Your task to perform on an android device: Search for the best rated running shoes on Nike.com Image 0: 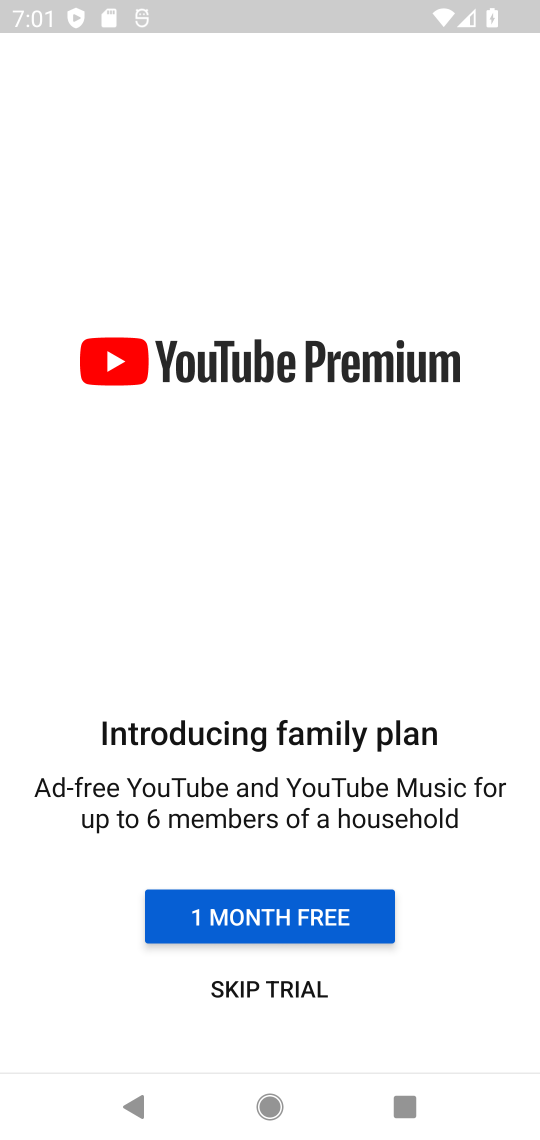
Step 0: press home button
Your task to perform on an android device: Search for the best rated running shoes on Nike.com Image 1: 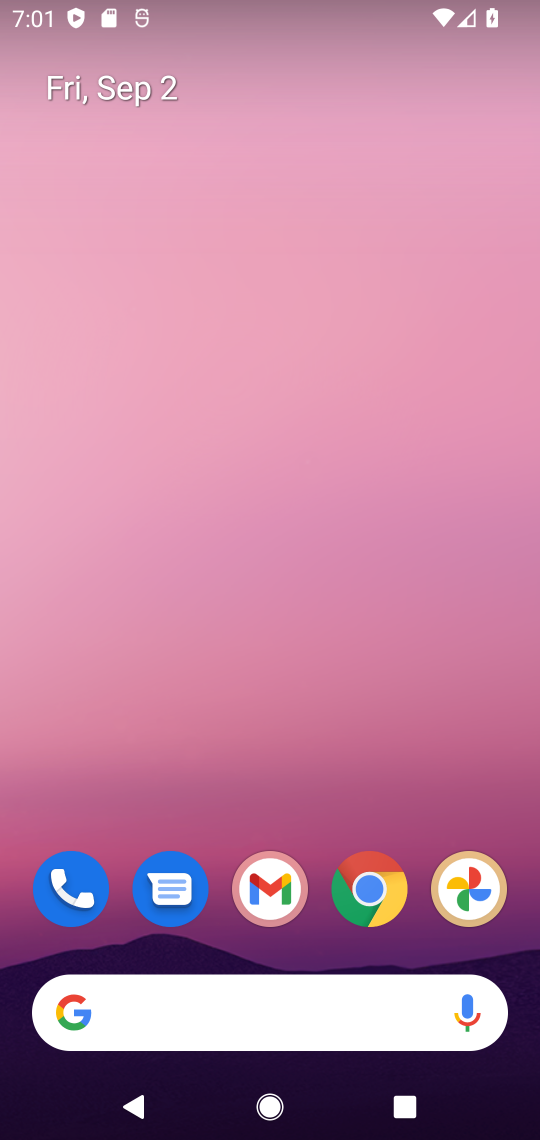
Step 1: click (371, 993)
Your task to perform on an android device: Search for the best rated running shoes on Nike.com Image 2: 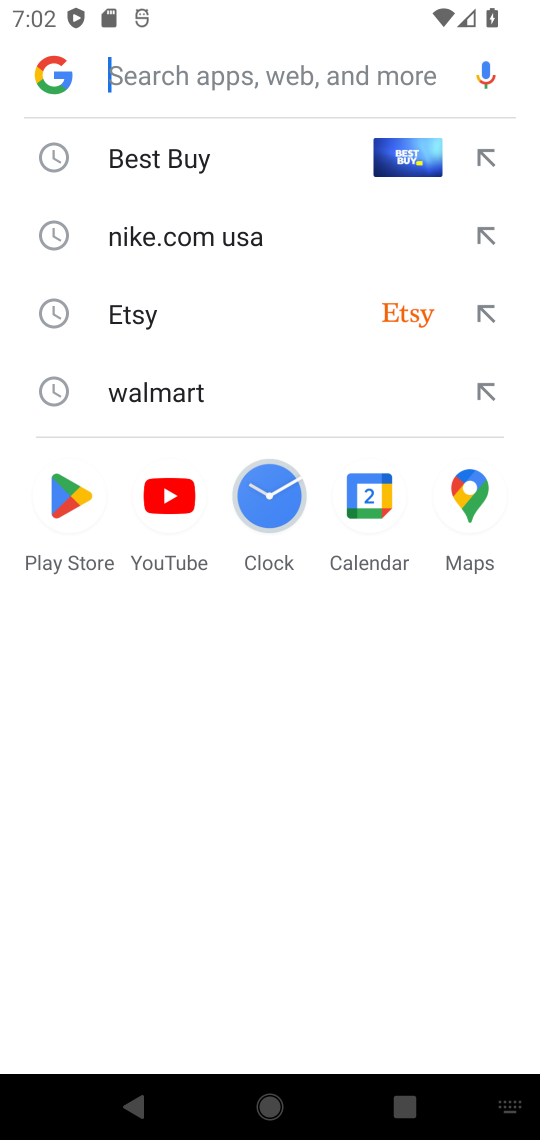
Step 2: type "Nike.com"
Your task to perform on an android device: Search for the best rated running shoes on Nike.com Image 3: 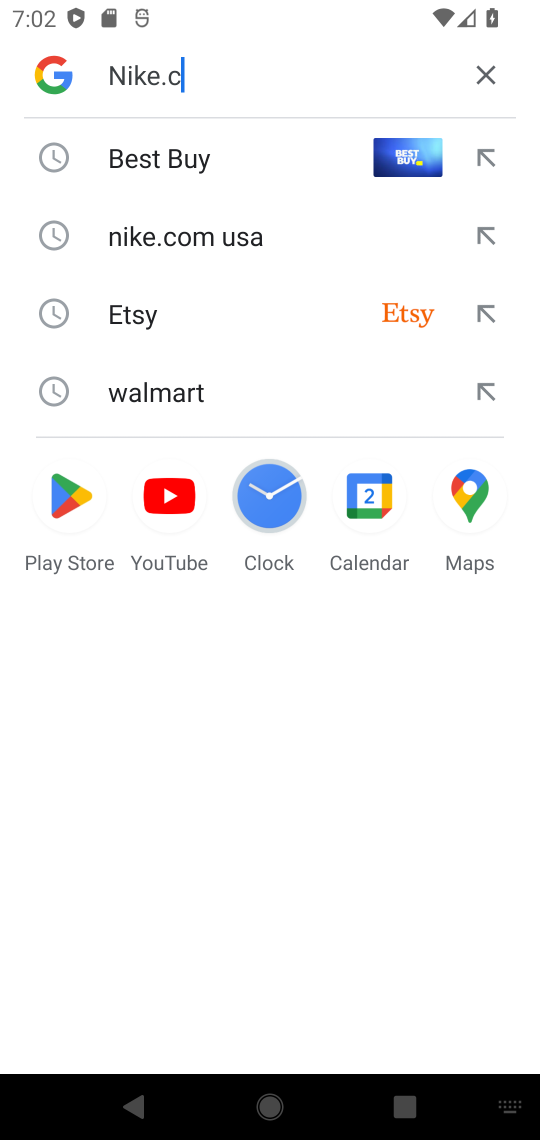
Step 3: type ""
Your task to perform on an android device: Search for the best rated running shoes on Nike.com Image 4: 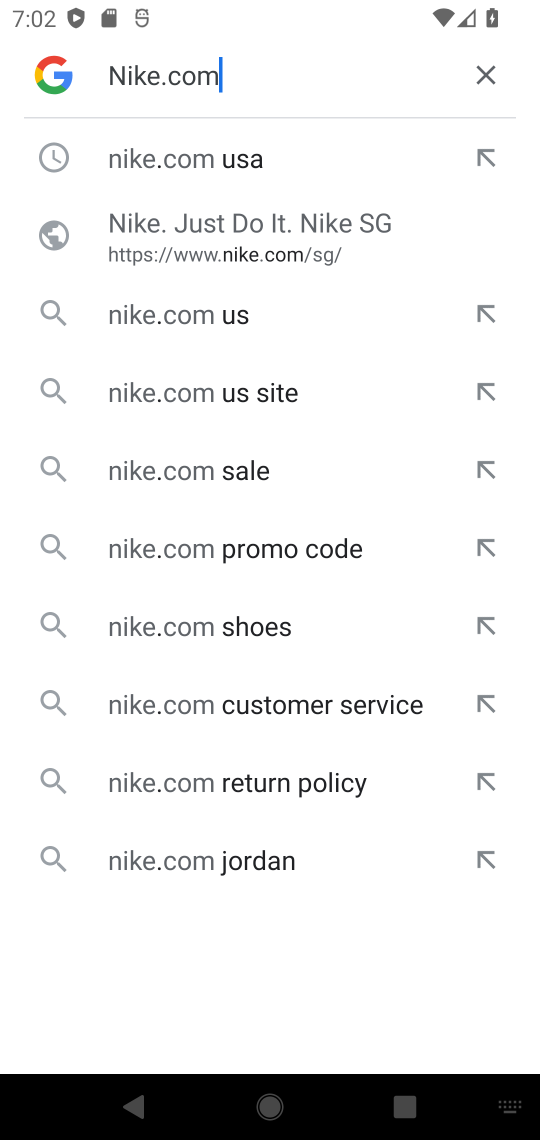
Step 4: click (222, 173)
Your task to perform on an android device: Search for the best rated running shoes on Nike.com Image 5: 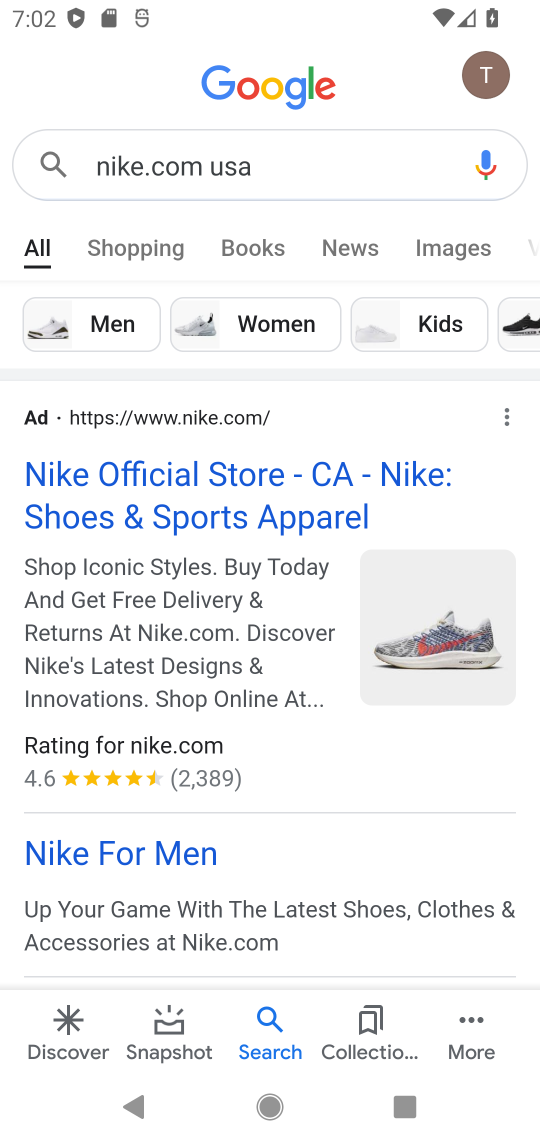
Step 5: drag from (294, 746) to (261, 143)
Your task to perform on an android device: Search for the best rated running shoes on Nike.com Image 6: 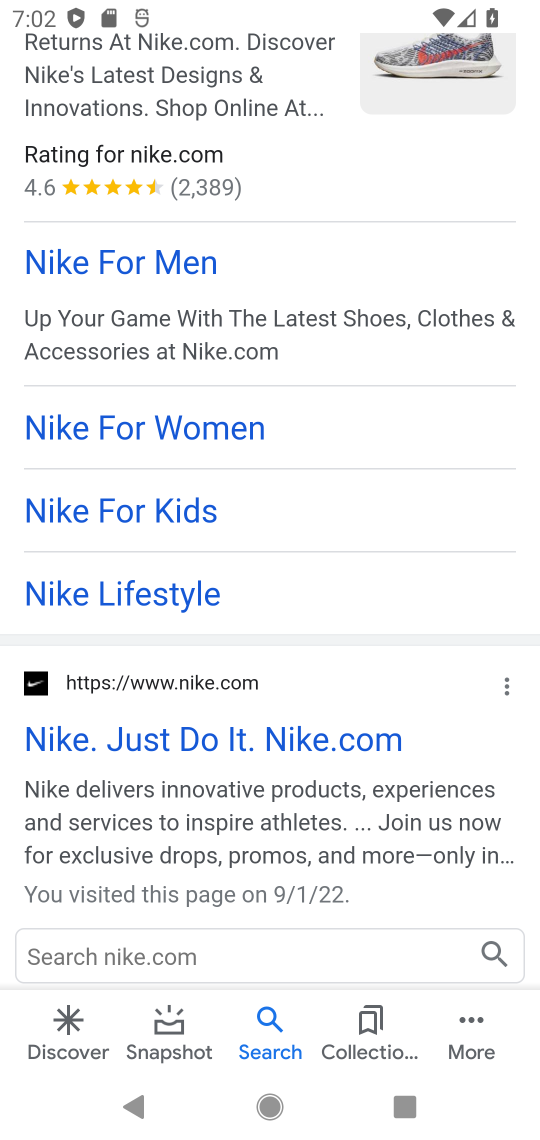
Step 6: click (161, 281)
Your task to perform on an android device: Search for the best rated running shoes on Nike.com Image 7: 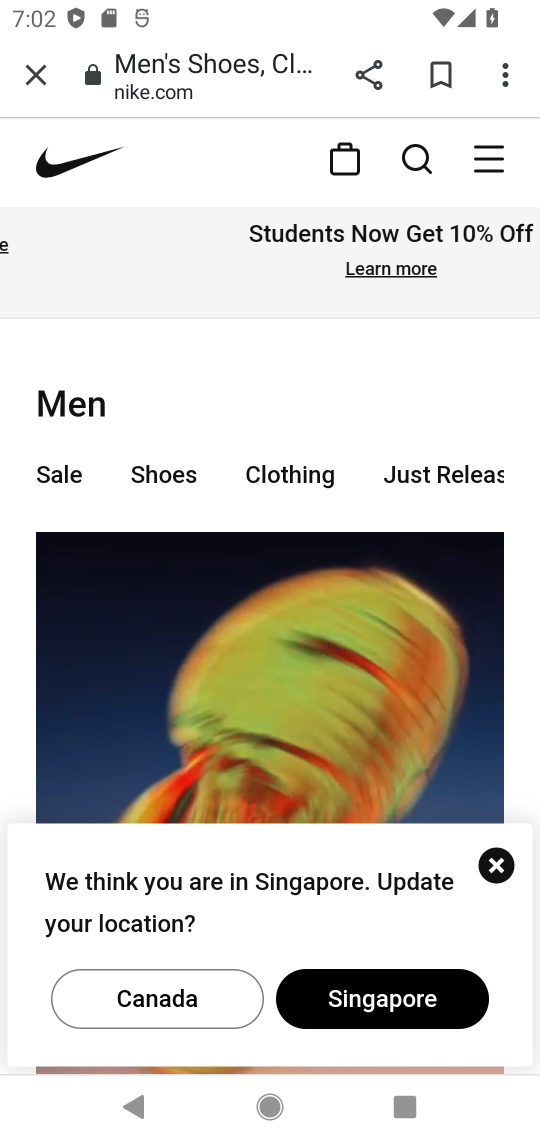
Step 7: click (409, 161)
Your task to perform on an android device: Search for the best rated running shoes on Nike.com Image 8: 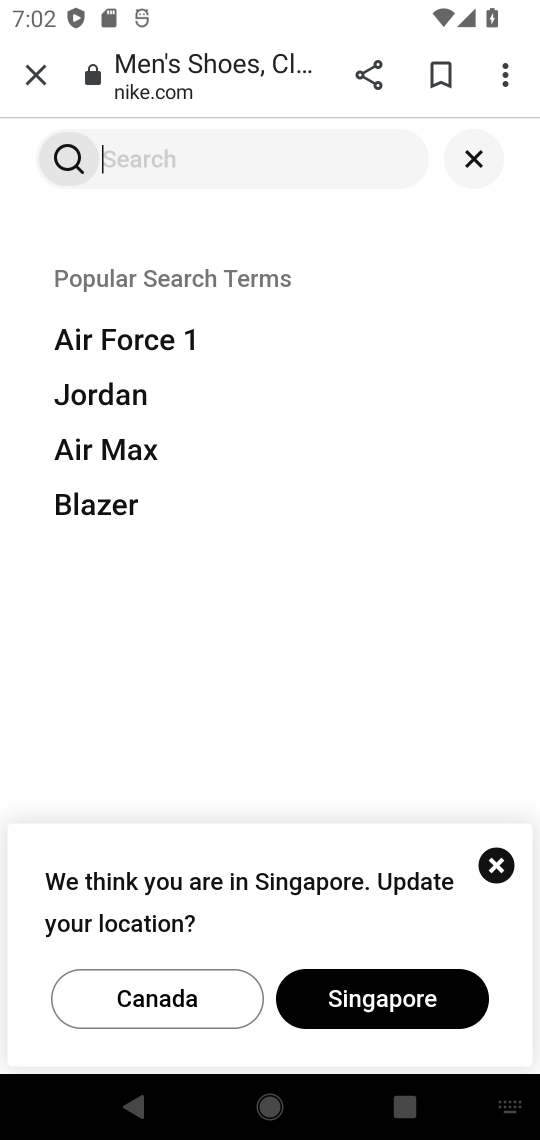
Step 8: type "running shoes"
Your task to perform on an android device: Search for the best rated running shoes on Nike.com Image 9: 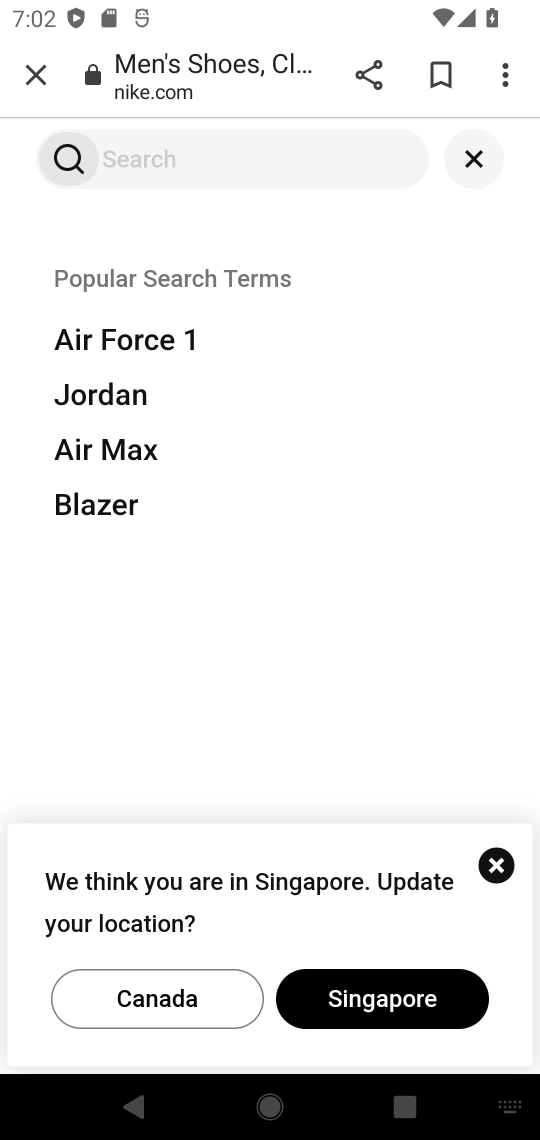
Step 9: type ""
Your task to perform on an android device: Search for the best rated running shoes on Nike.com Image 10: 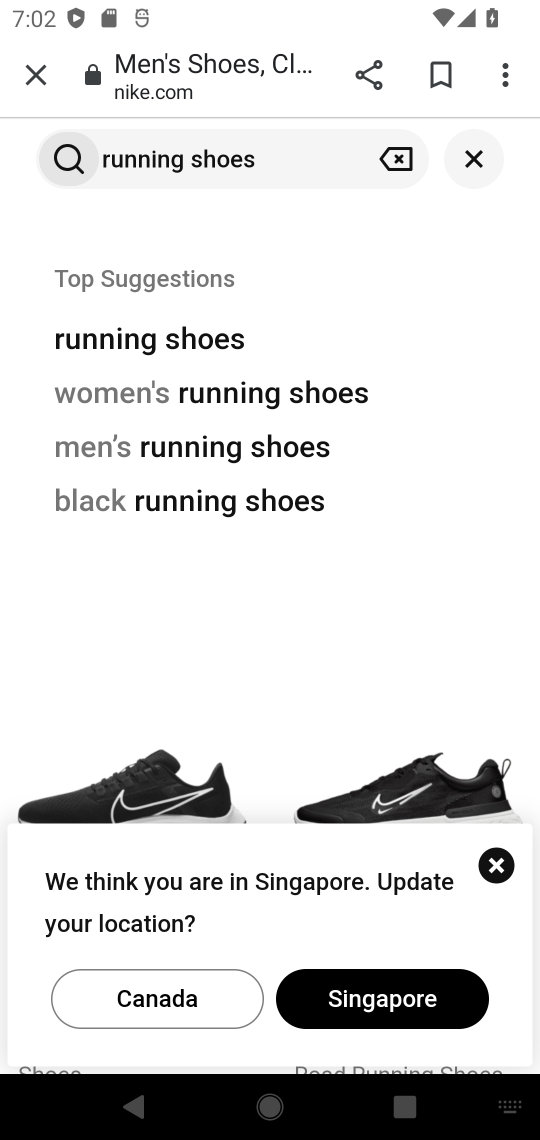
Step 10: click (220, 338)
Your task to perform on an android device: Search for the best rated running shoes on Nike.com Image 11: 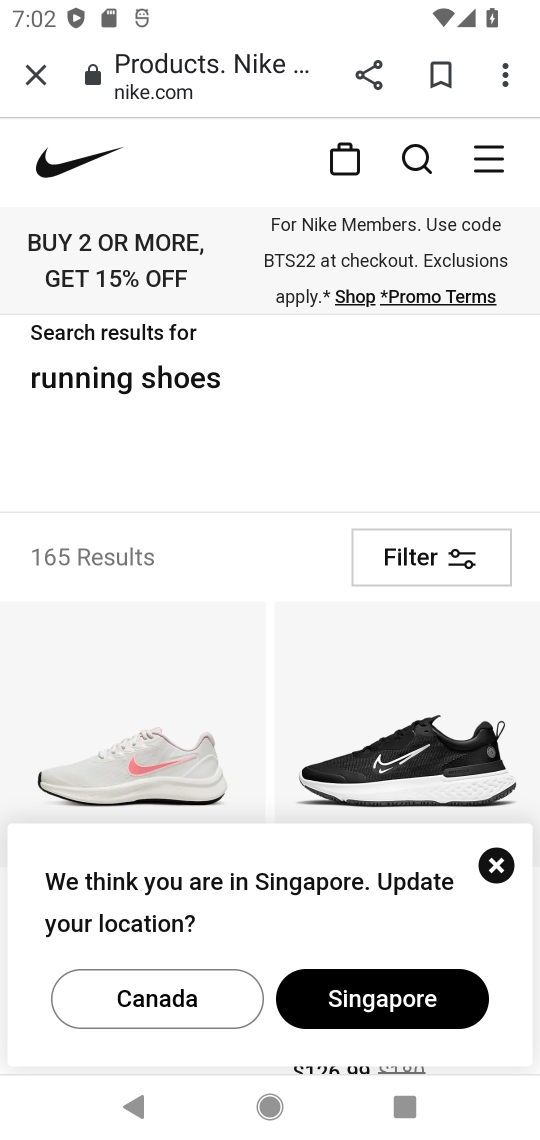
Step 11: task complete